Your task to perform on an android device: stop showing notifications on the lock screen Image 0: 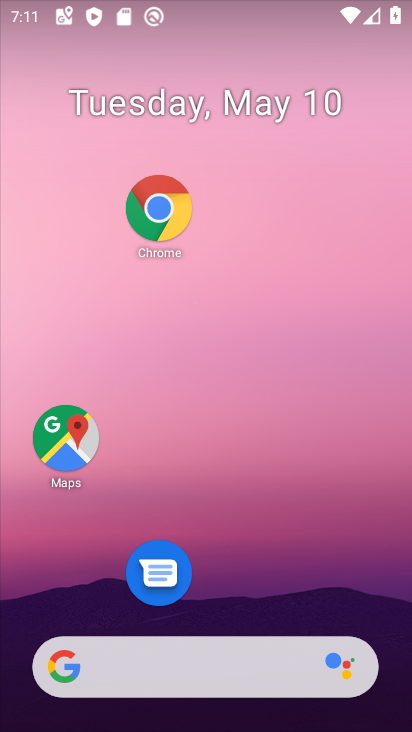
Step 0: drag from (292, 702) to (237, 159)
Your task to perform on an android device: stop showing notifications on the lock screen Image 1: 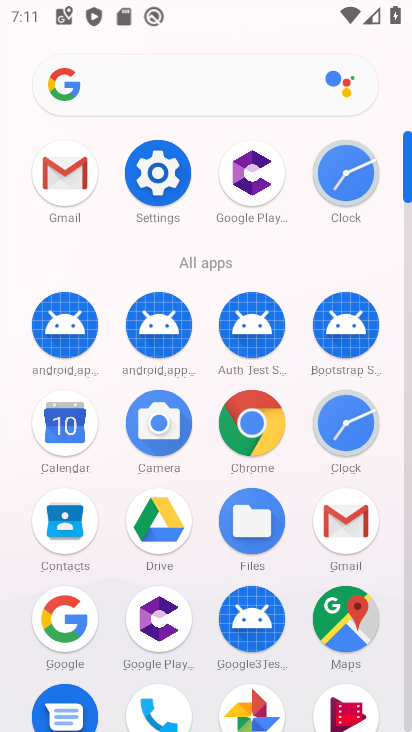
Step 1: click (136, 170)
Your task to perform on an android device: stop showing notifications on the lock screen Image 2: 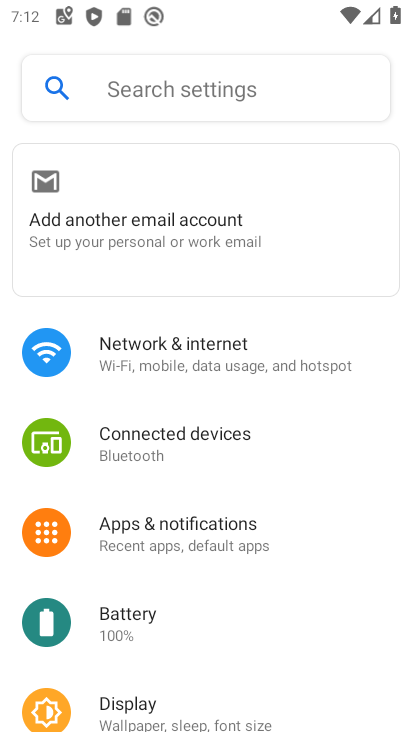
Step 2: click (157, 86)
Your task to perform on an android device: stop showing notifications on the lock screen Image 3: 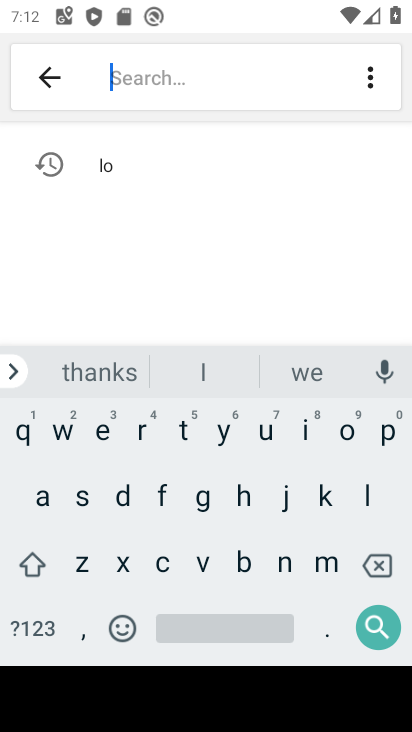
Step 3: click (286, 571)
Your task to perform on an android device: stop showing notifications on the lock screen Image 4: 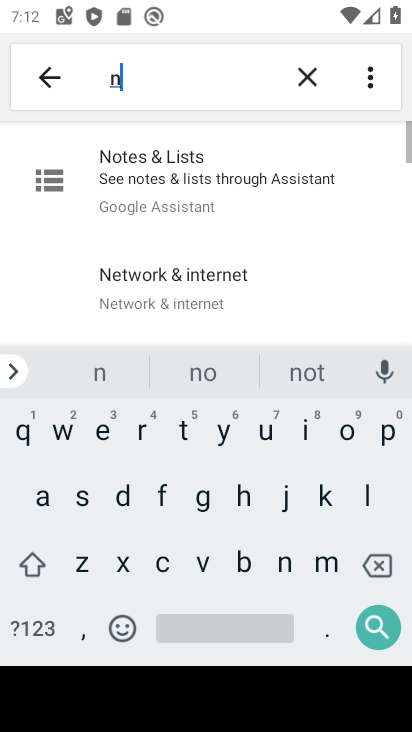
Step 4: click (348, 439)
Your task to perform on an android device: stop showing notifications on the lock screen Image 5: 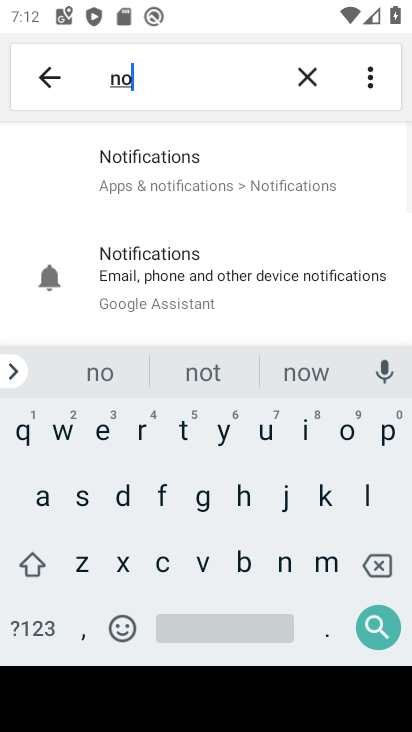
Step 5: click (164, 194)
Your task to perform on an android device: stop showing notifications on the lock screen Image 6: 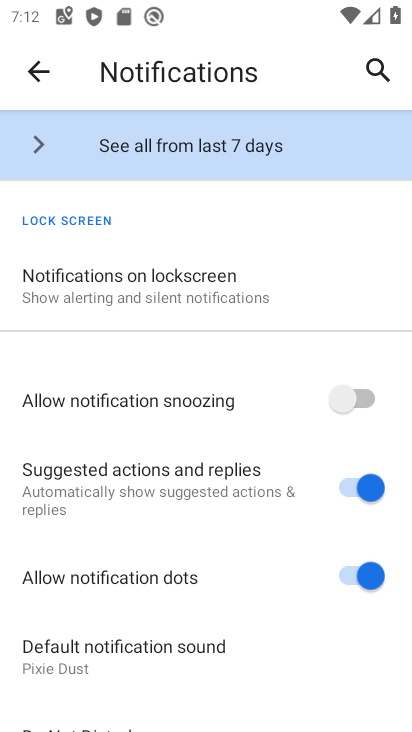
Step 6: click (107, 283)
Your task to perform on an android device: stop showing notifications on the lock screen Image 7: 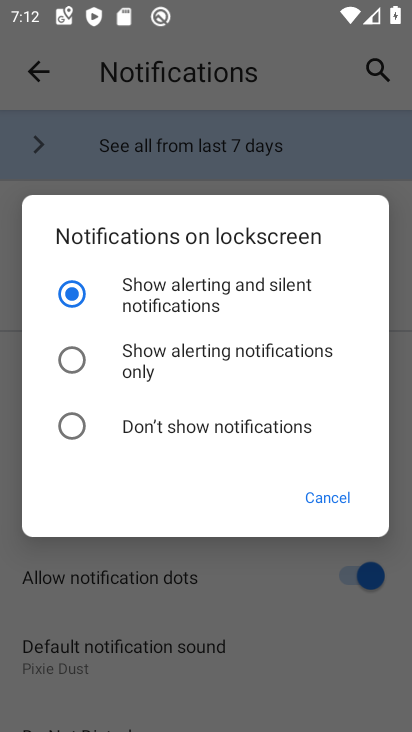
Step 7: task complete